Your task to perform on an android device: toggle notification dots Image 0: 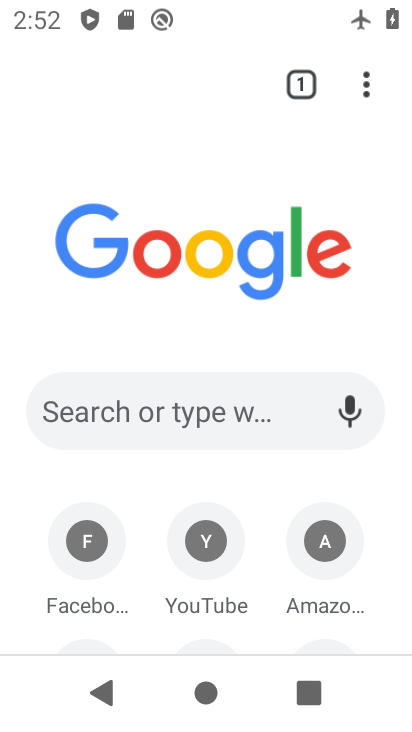
Step 0: press home button
Your task to perform on an android device: toggle notification dots Image 1: 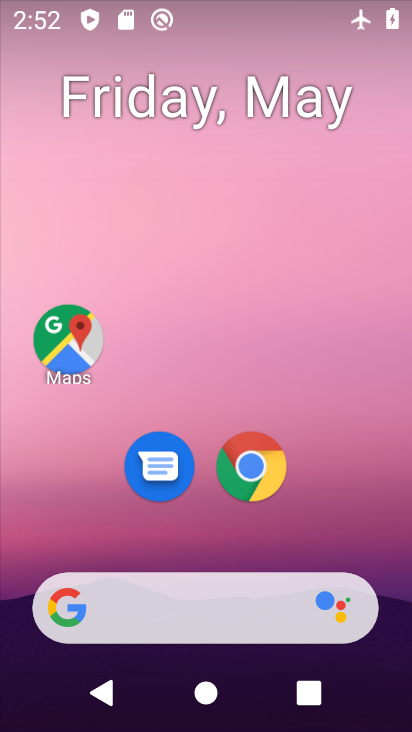
Step 1: drag from (210, 544) to (254, 77)
Your task to perform on an android device: toggle notification dots Image 2: 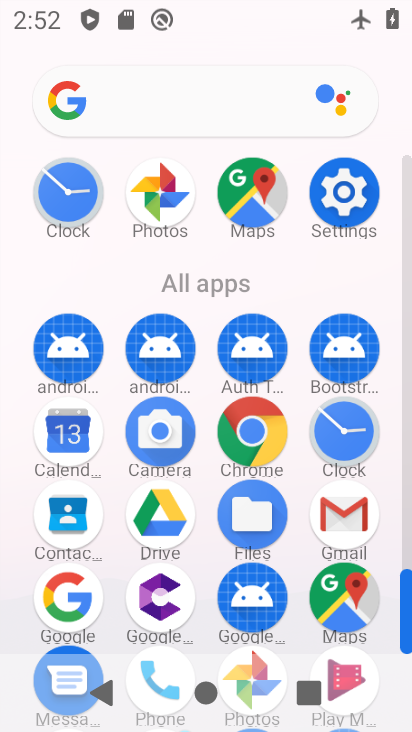
Step 2: click (347, 189)
Your task to perform on an android device: toggle notification dots Image 3: 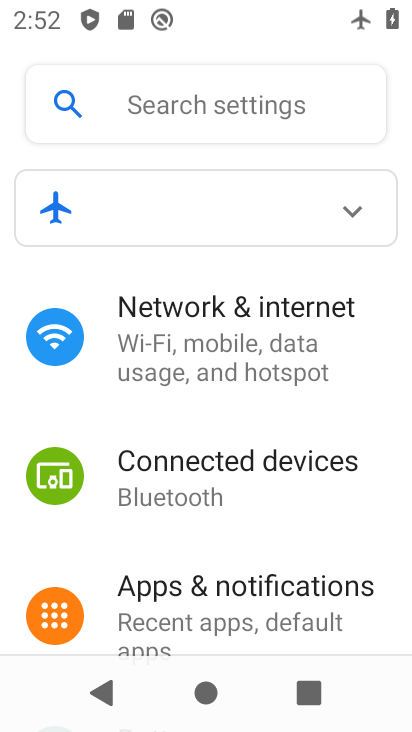
Step 3: click (224, 589)
Your task to perform on an android device: toggle notification dots Image 4: 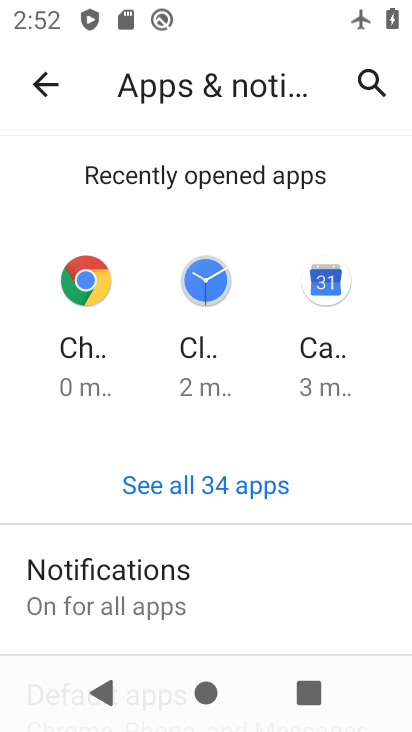
Step 4: click (206, 578)
Your task to perform on an android device: toggle notification dots Image 5: 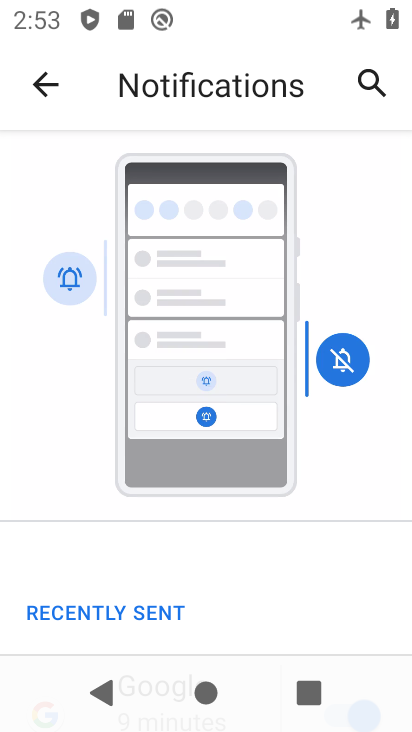
Step 5: drag from (222, 608) to (274, 158)
Your task to perform on an android device: toggle notification dots Image 6: 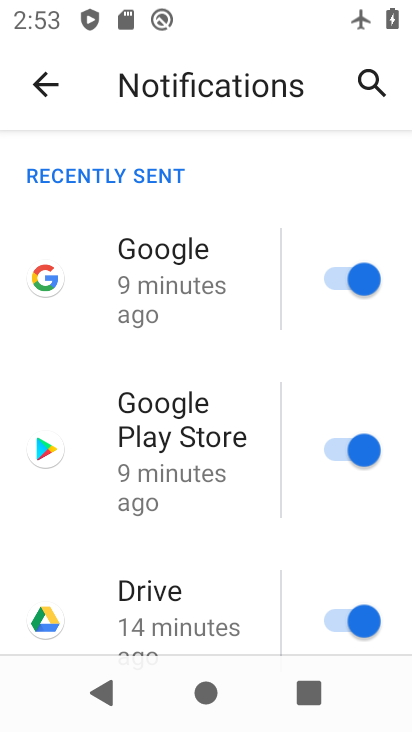
Step 6: drag from (209, 576) to (207, 126)
Your task to perform on an android device: toggle notification dots Image 7: 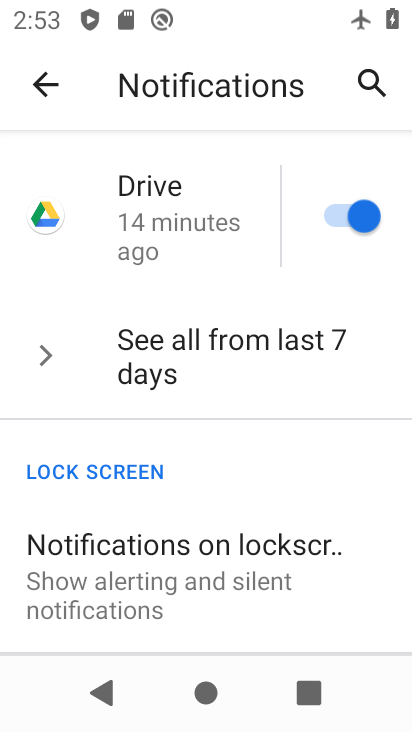
Step 7: drag from (231, 618) to (239, 127)
Your task to perform on an android device: toggle notification dots Image 8: 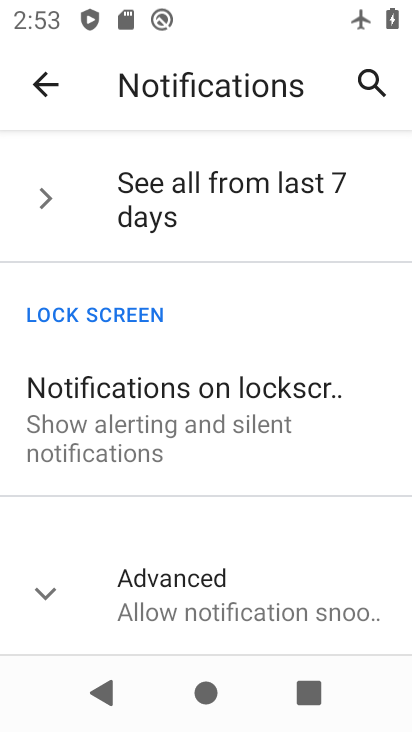
Step 8: click (53, 588)
Your task to perform on an android device: toggle notification dots Image 9: 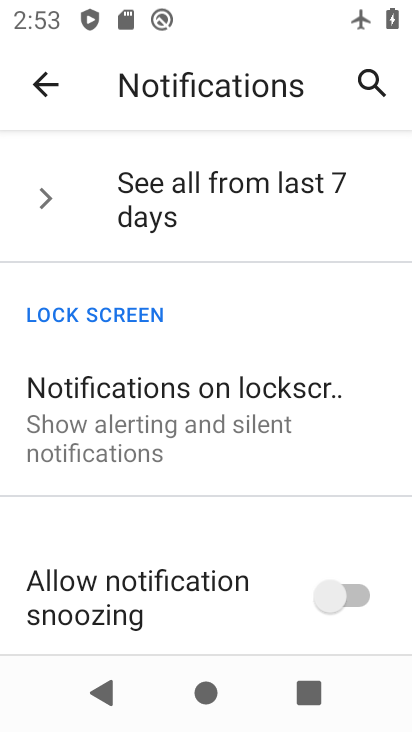
Step 9: drag from (192, 615) to (245, 158)
Your task to perform on an android device: toggle notification dots Image 10: 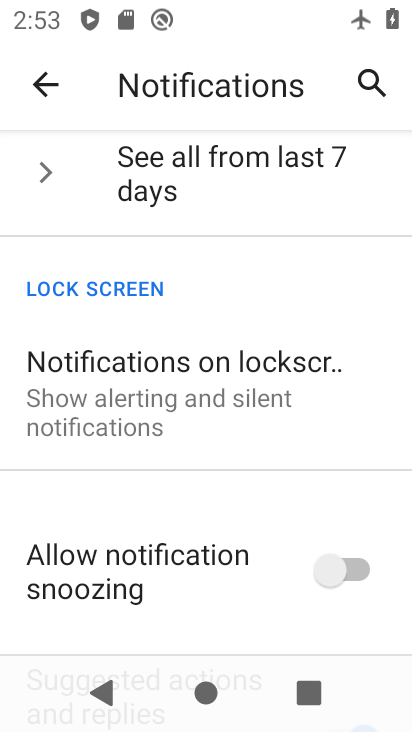
Step 10: drag from (194, 601) to (274, 77)
Your task to perform on an android device: toggle notification dots Image 11: 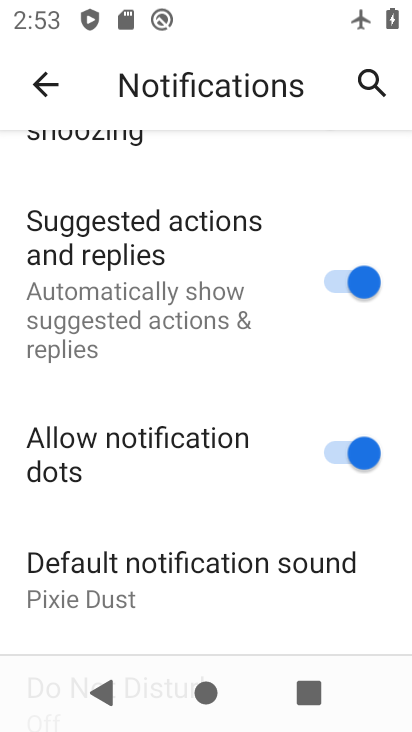
Step 11: click (334, 449)
Your task to perform on an android device: toggle notification dots Image 12: 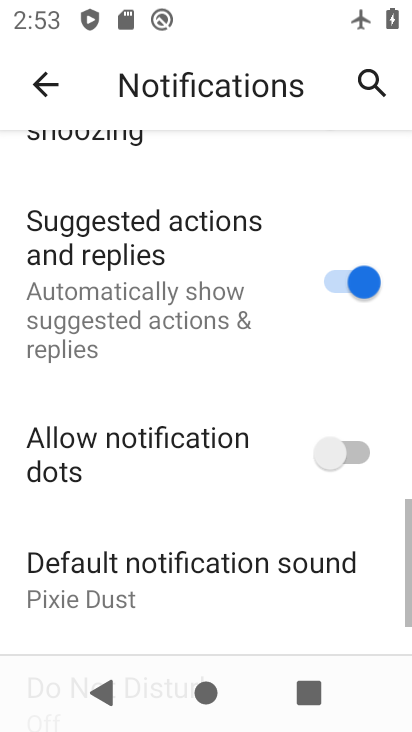
Step 12: task complete